Your task to perform on an android device: toggle airplane mode Image 0: 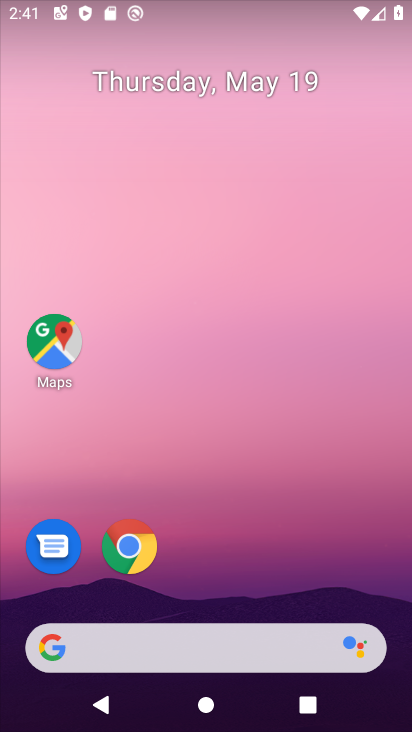
Step 0: drag from (226, 558) to (203, 92)
Your task to perform on an android device: toggle airplane mode Image 1: 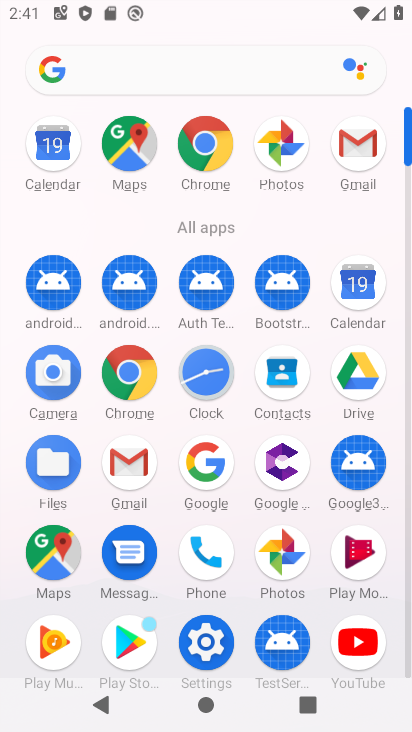
Step 1: click (206, 642)
Your task to perform on an android device: toggle airplane mode Image 2: 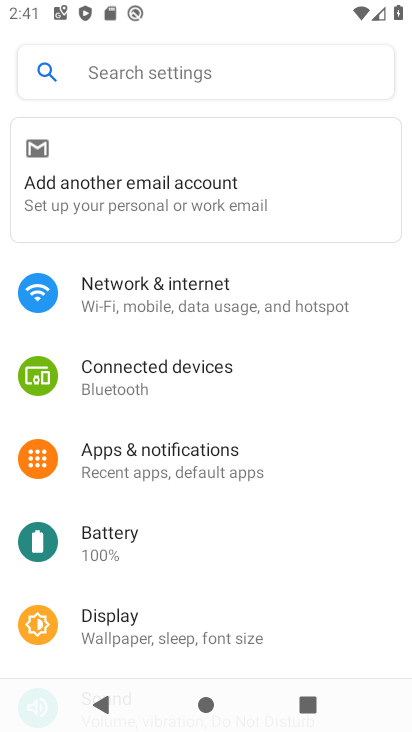
Step 2: click (191, 289)
Your task to perform on an android device: toggle airplane mode Image 3: 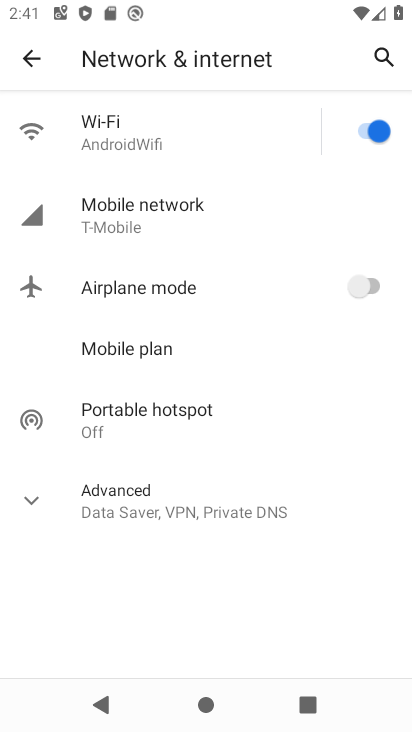
Step 3: click (363, 281)
Your task to perform on an android device: toggle airplane mode Image 4: 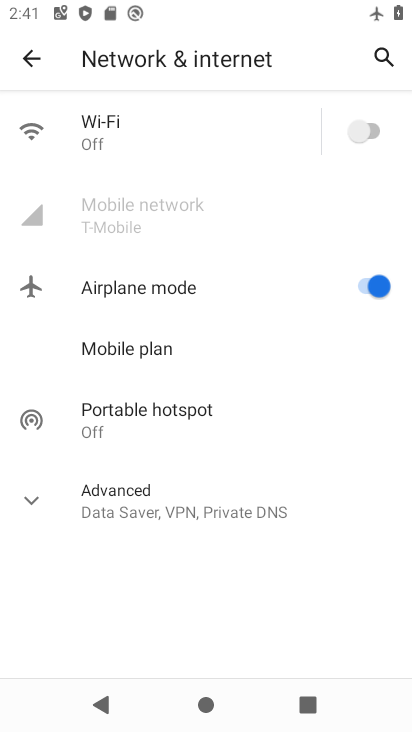
Step 4: task complete